Your task to perform on an android device: turn off smart reply in the gmail app Image 0: 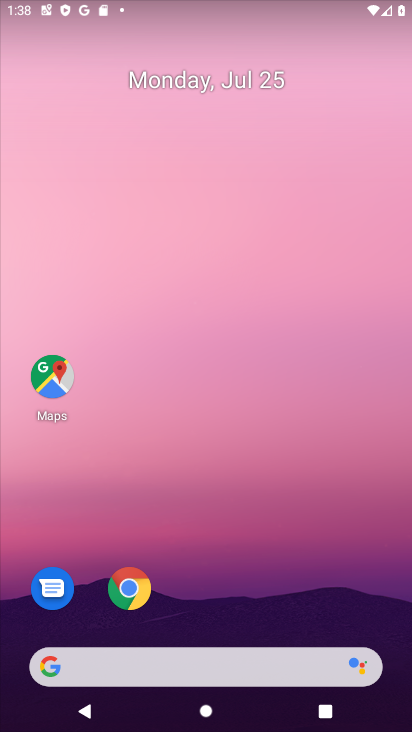
Step 0: drag from (204, 475) to (238, 242)
Your task to perform on an android device: turn off smart reply in the gmail app Image 1: 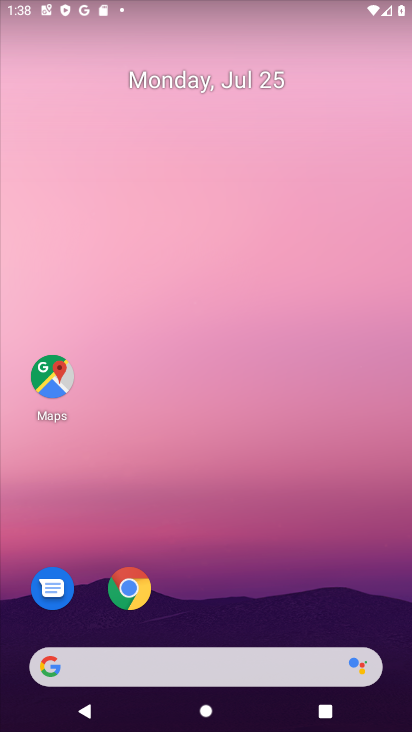
Step 1: drag from (194, 541) to (223, 232)
Your task to perform on an android device: turn off smart reply in the gmail app Image 2: 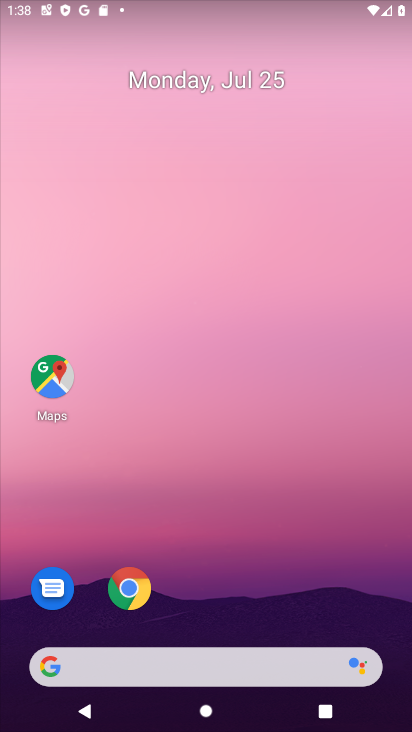
Step 2: drag from (183, 574) to (167, 251)
Your task to perform on an android device: turn off smart reply in the gmail app Image 3: 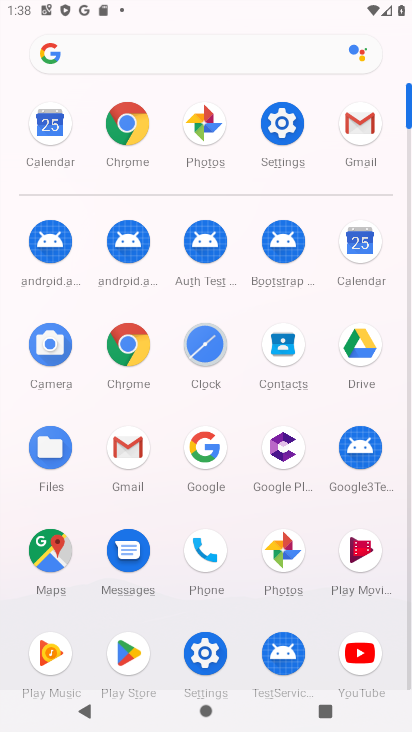
Step 3: click (350, 145)
Your task to perform on an android device: turn off smart reply in the gmail app Image 4: 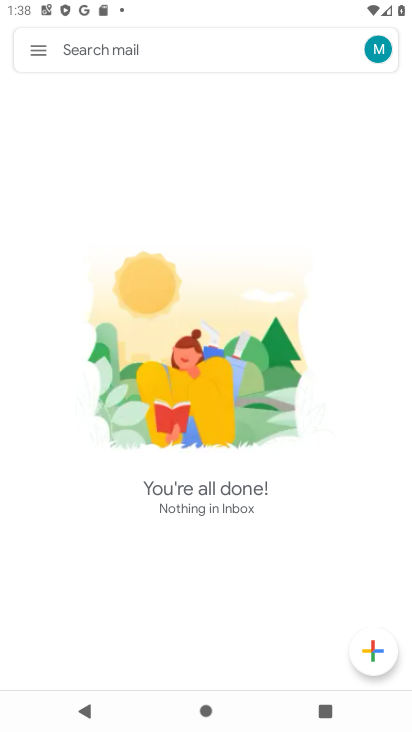
Step 4: click (36, 54)
Your task to perform on an android device: turn off smart reply in the gmail app Image 5: 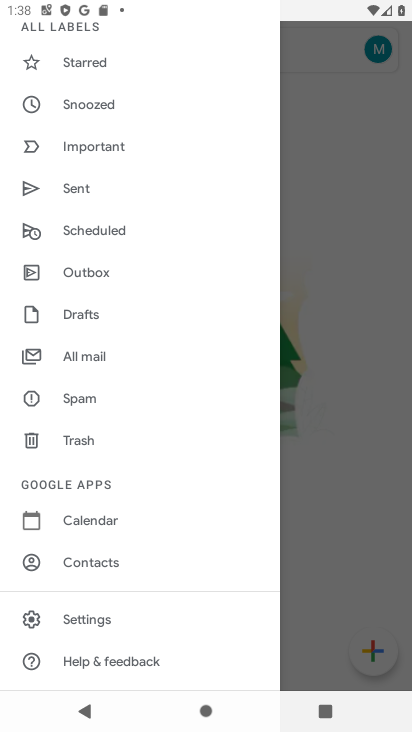
Step 5: click (98, 623)
Your task to perform on an android device: turn off smart reply in the gmail app Image 6: 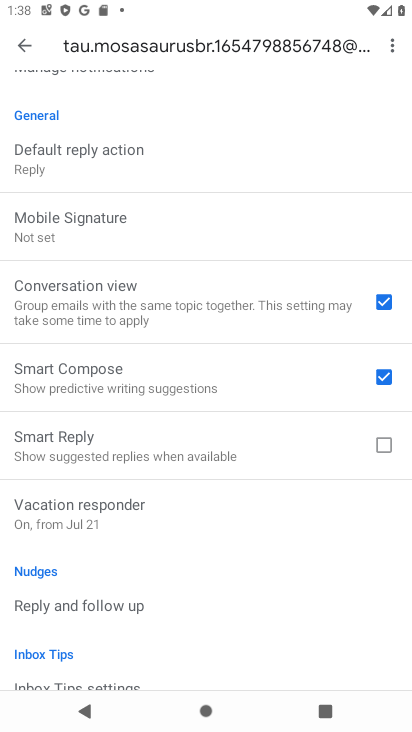
Step 6: task complete